Your task to perform on an android device: Open the phone app and click the voicemail tab. Image 0: 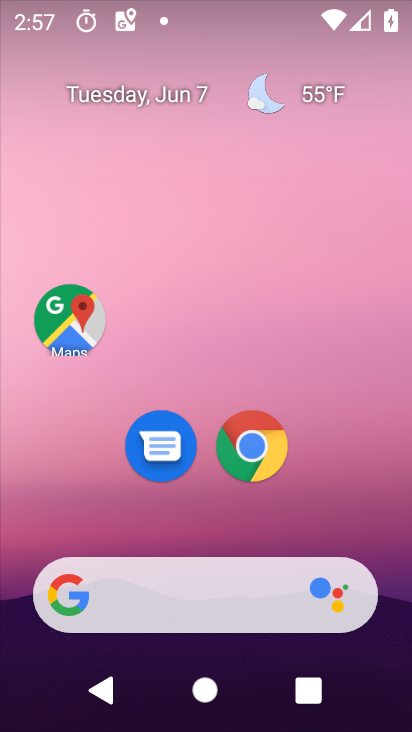
Step 0: drag from (193, 486) to (287, 1)
Your task to perform on an android device: Open the phone app and click the voicemail tab. Image 1: 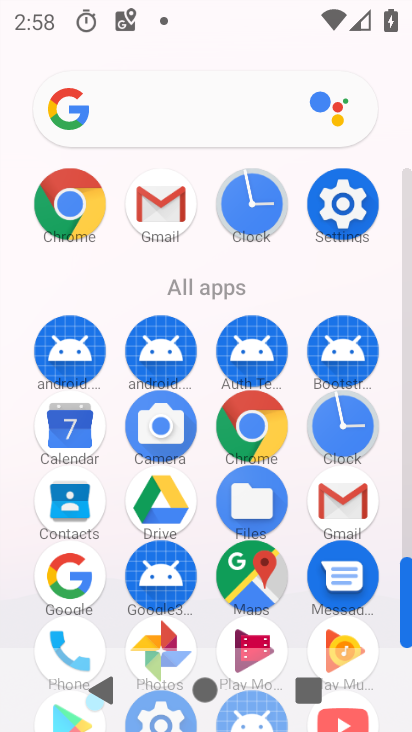
Step 1: click (74, 635)
Your task to perform on an android device: Open the phone app and click the voicemail tab. Image 2: 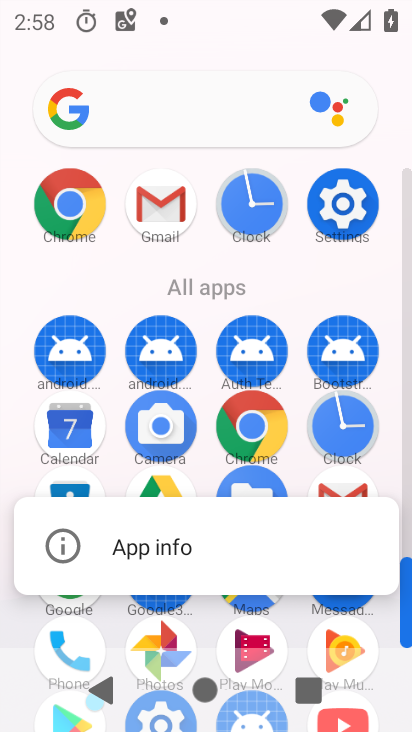
Step 2: click (86, 637)
Your task to perform on an android device: Open the phone app and click the voicemail tab. Image 3: 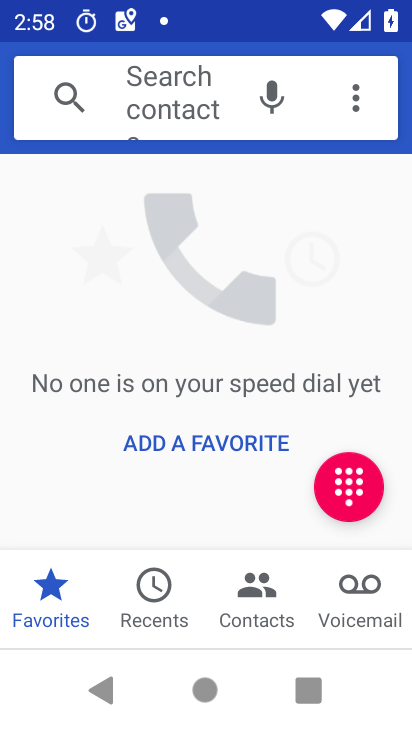
Step 3: click (375, 592)
Your task to perform on an android device: Open the phone app and click the voicemail tab. Image 4: 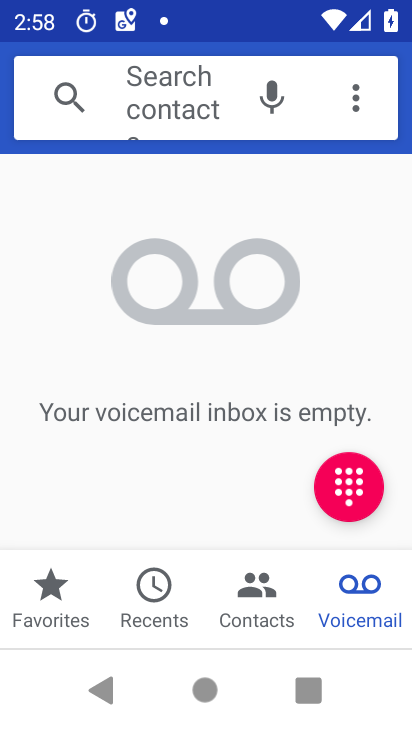
Step 4: task complete